Your task to perform on an android device: Show the shopping cart on costco.com. Image 0: 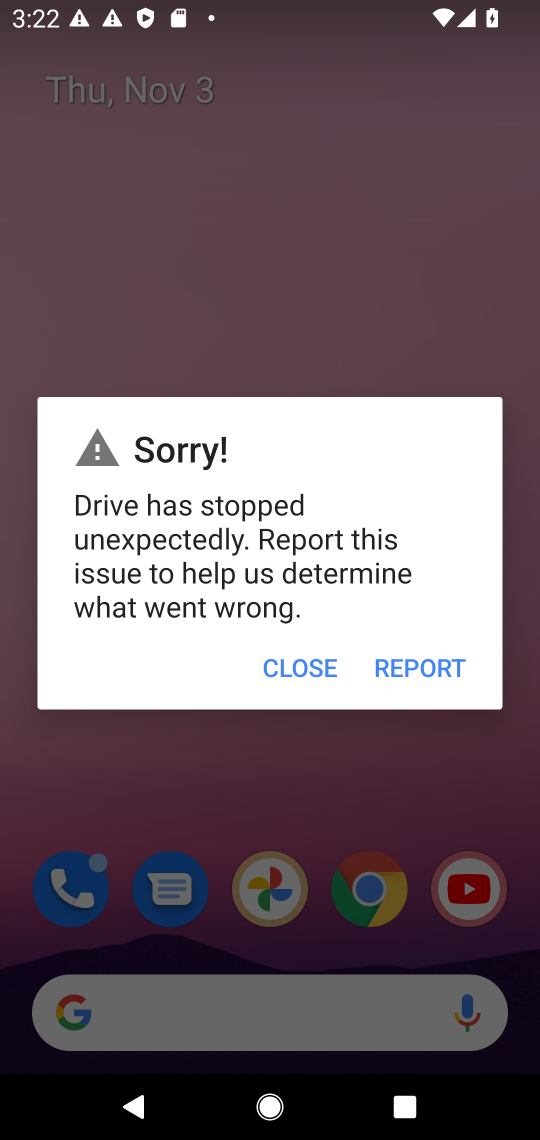
Step 0: click (307, 668)
Your task to perform on an android device: Show the shopping cart on costco.com. Image 1: 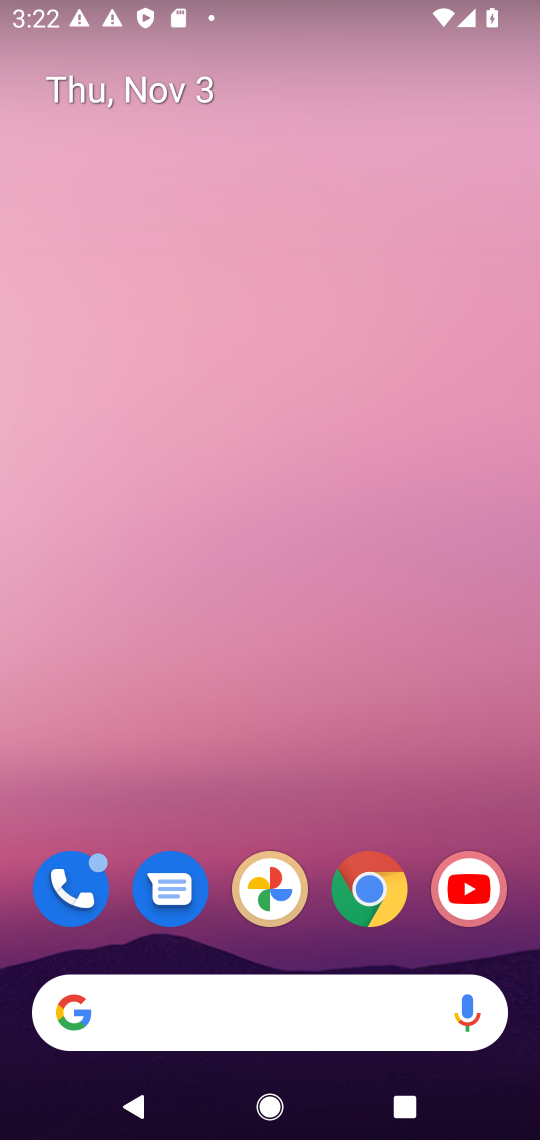
Step 1: click (381, 887)
Your task to perform on an android device: Show the shopping cart on costco.com. Image 2: 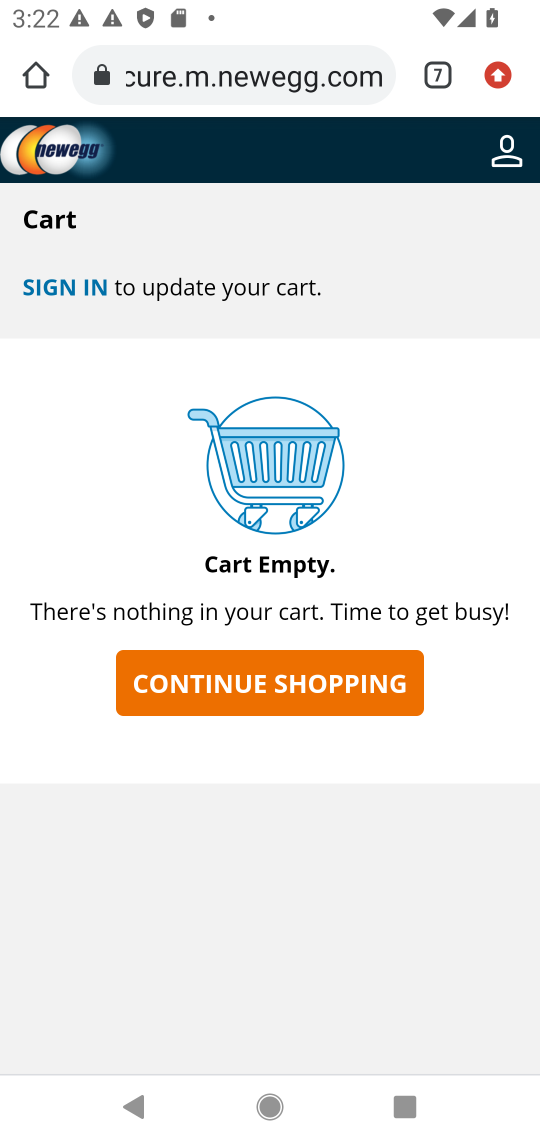
Step 2: click (429, 73)
Your task to perform on an android device: Show the shopping cart on costco.com. Image 3: 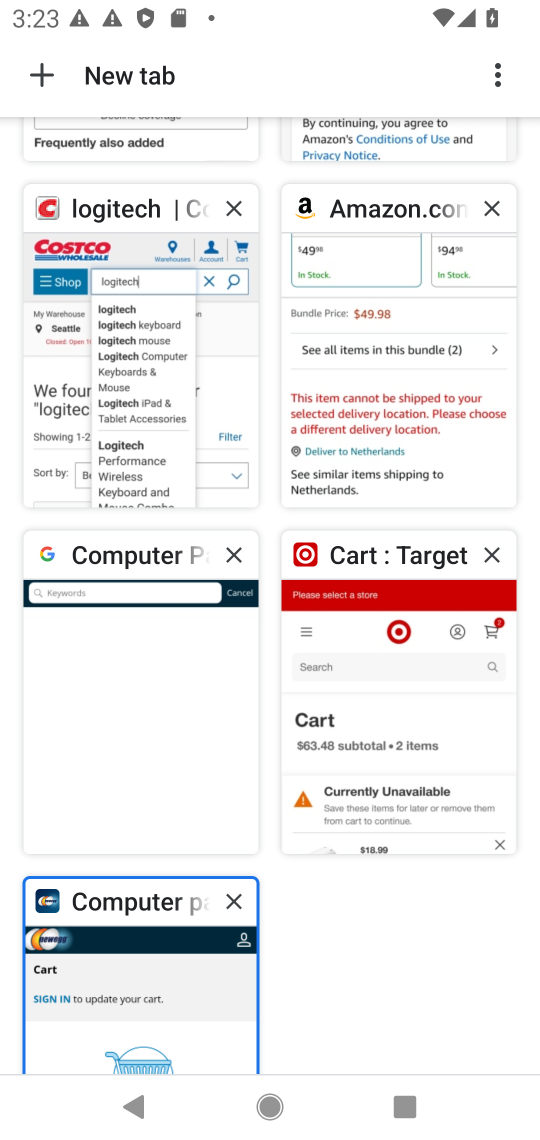
Step 3: click (42, 83)
Your task to perform on an android device: Show the shopping cart on costco.com. Image 4: 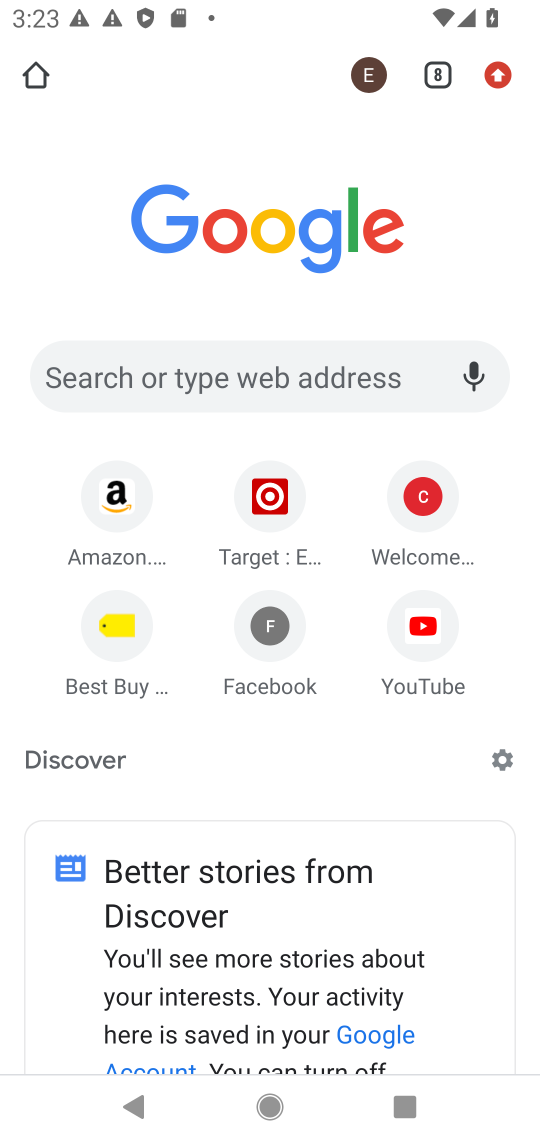
Step 4: click (154, 390)
Your task to perform on an android device: Show the shopping cart on costco.com. Image 5: 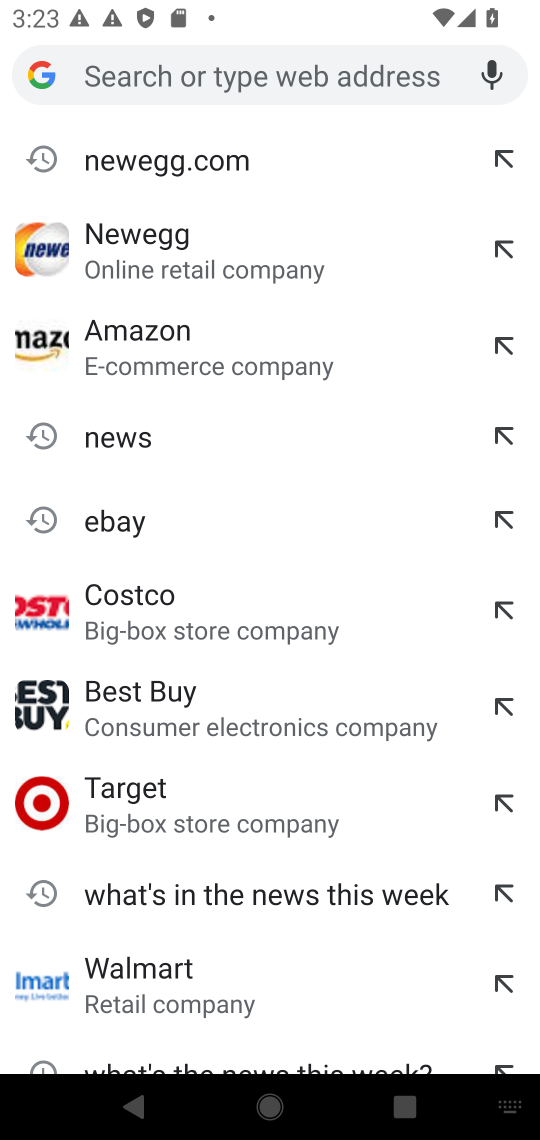
Step 5: click (211, 616)
Your task to perform on an android device: Show the shopping cart on costco.com. Image 6: 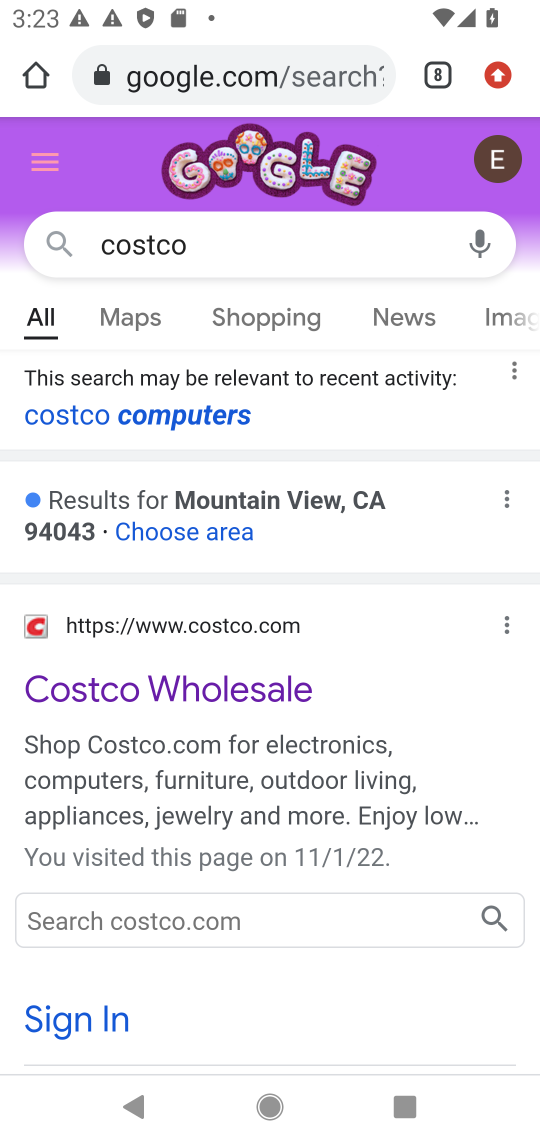
Step 6: click (231, 704)
Your task to perform on an android device: Show the shopping cart on costco.com. Image 7: 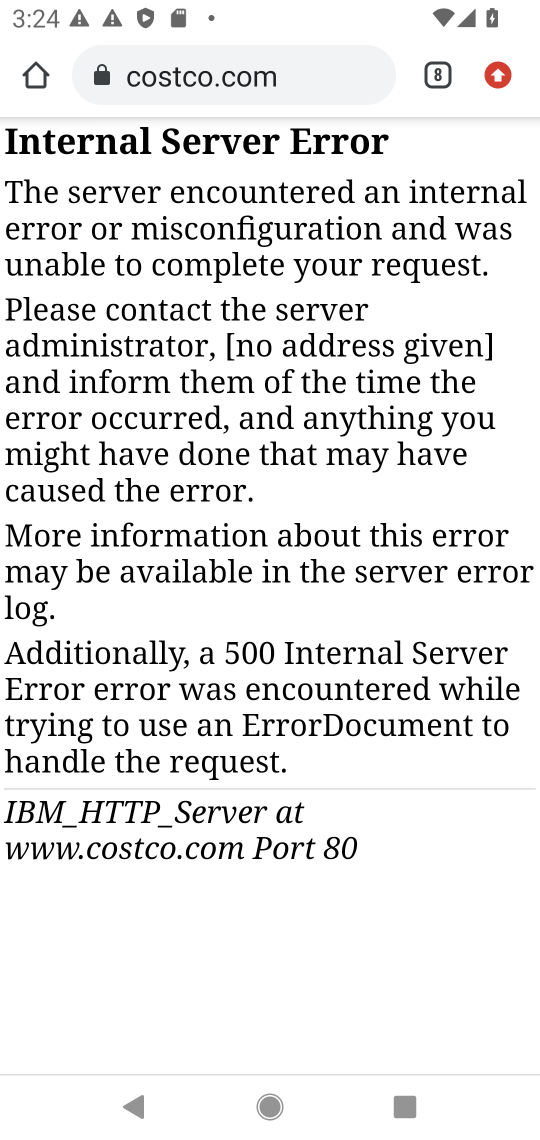
Step 7: task complete